Your task to perform on an android device: Open Yahoo.com Image 0: 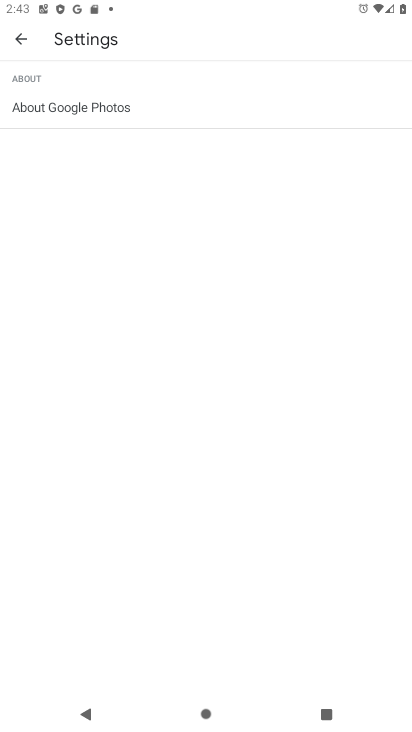
Step 0: press home button
Your task to perform on an android device: Open Yahoo.com Image 1: 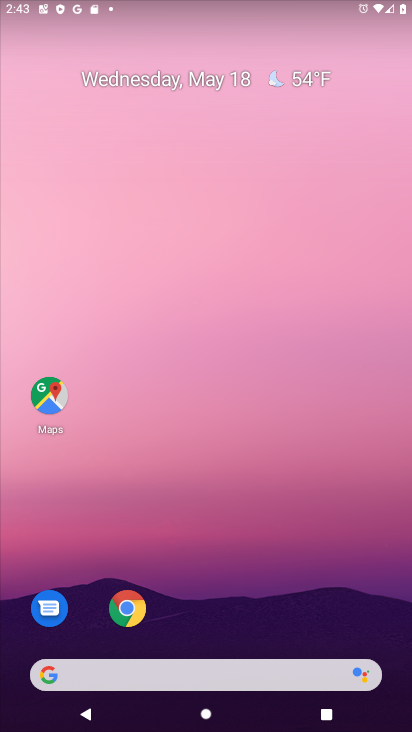
Step 1: click (136, 619)
Your task to perform on an android device: Open Yahoo.com Image 2: 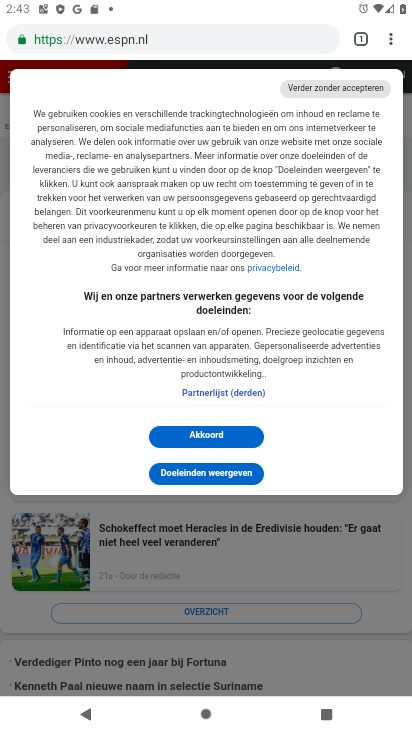
Step 2: click (85, 38)
Your task to perform on an android device: Open Yahoo.com Image 3: 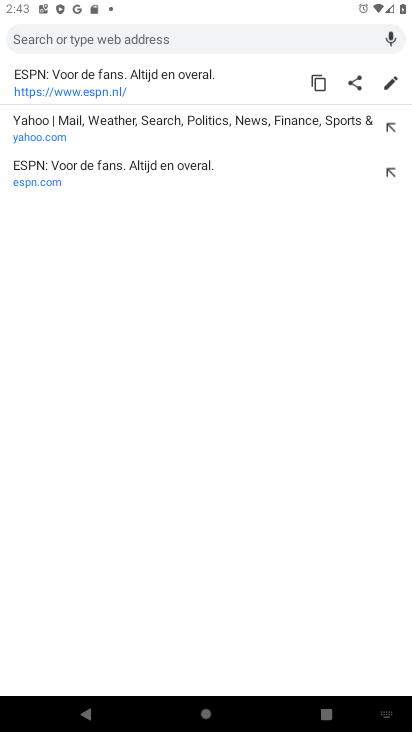
Step 3: click (47, 131)
Your task to perform on an android device: Open Yahoo.com Image 4: 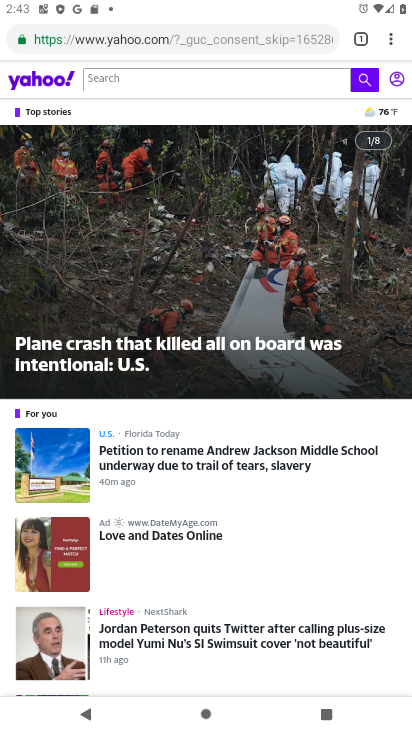
Step 4: task complete